Your task to perform on an android device: Open display settings Image 0: 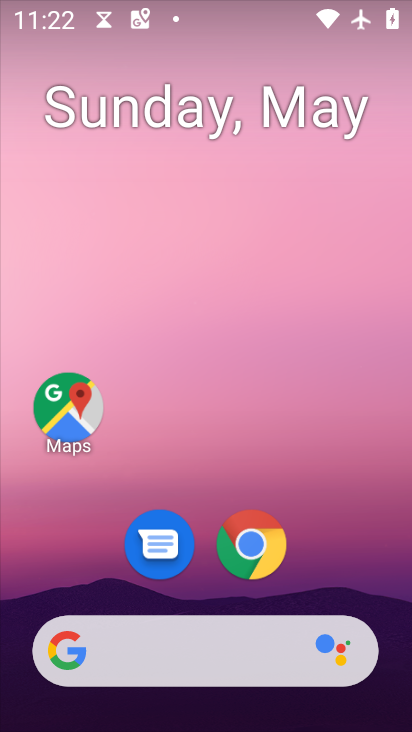
Step 0: drag from (297, 575) to (320, 282)
Your task to perform on an android device: Open display settings Image 1: 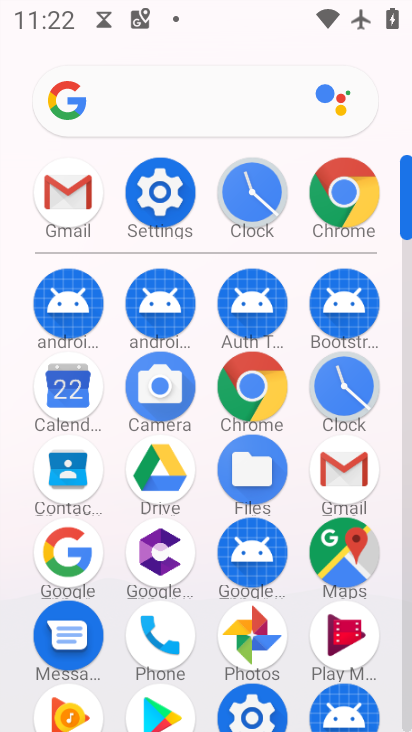
Step 1: click (158, 204)
Your task to perform on an android device: Open display settings Image 2: 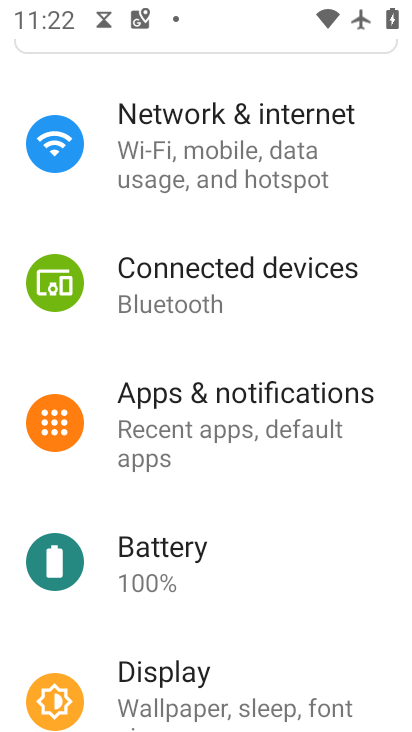
Step 2: click (204, 686)
Your task to perform on an android device: Open display settings Image 3: 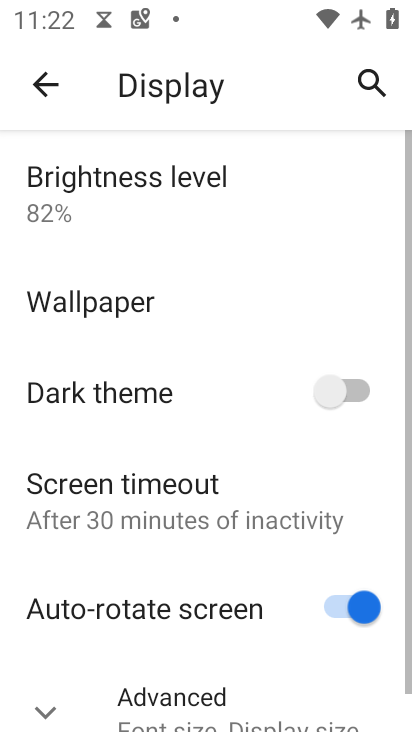
Step 3: task complete